Your task to perform on an android device: move an email to a new category in the gmail app Image 0: 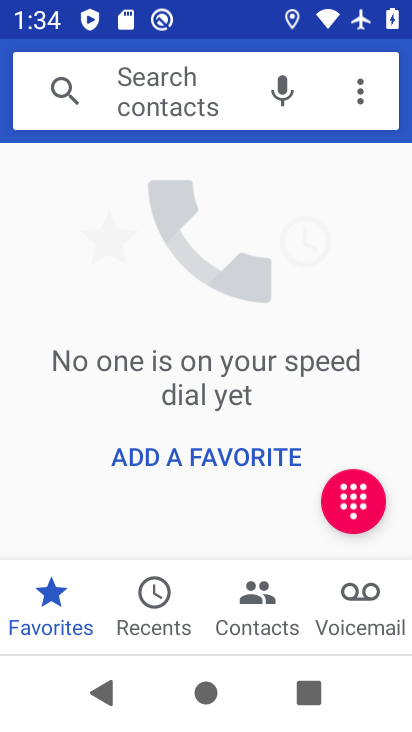
Step 0: press home button
Your task to perform on an android device: move an email to a new category in the gmail app Image 1: 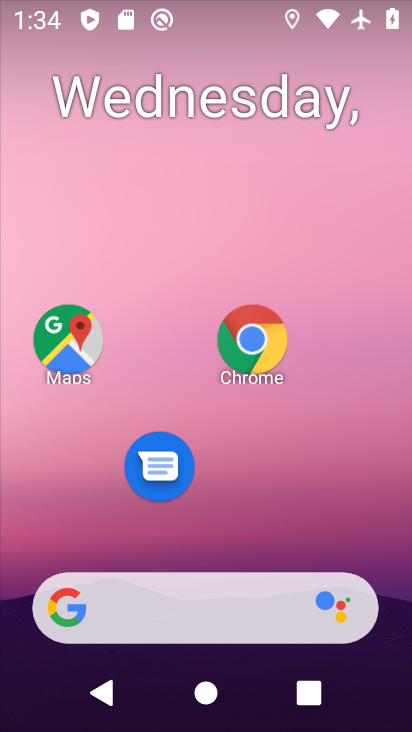
Step 1: drag from (179, 622) to (277, 193)
Your task to perform on an android device: move an email to a new category in the gmail app Image 2: 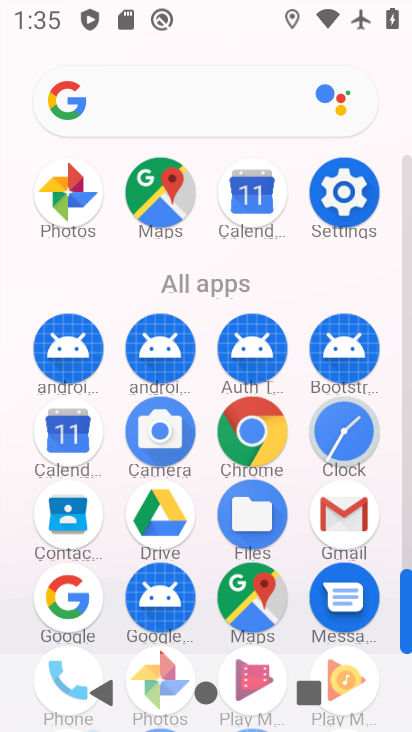
Step 2: click (348, 523)
Your task to perform on an android device: move an email to a new category in the gmail app Image 3: 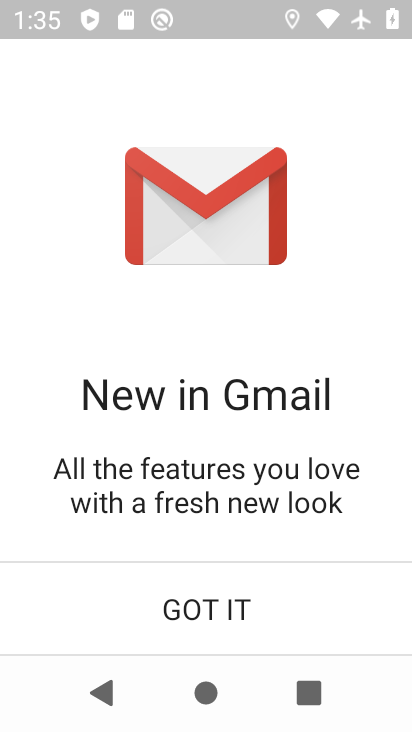
Step 3: click (217, 614)
Your task to perform on an android device: move an email to a new category in the gmail app Image 4: 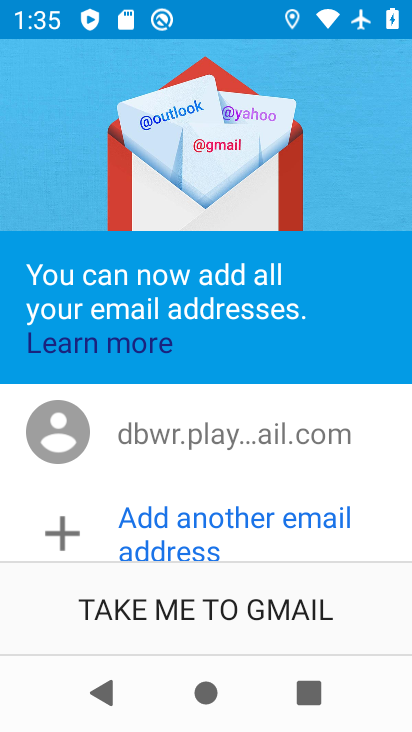
Step 4: click (217, 614)
Your task to perform on an android device: move an email to a new category in the gmail app Image 5: 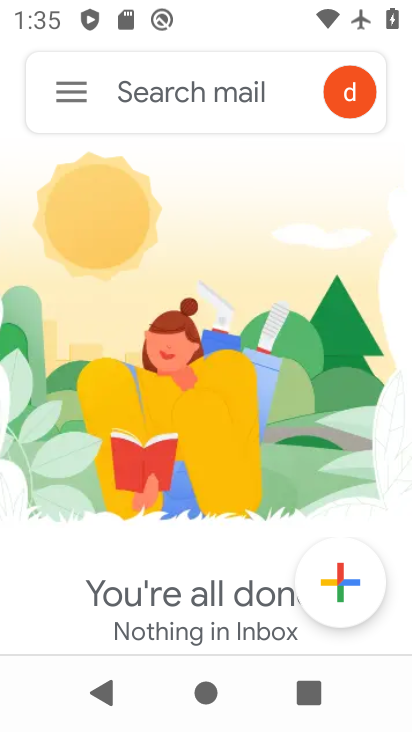
Step 5: task complete